Your task to perform on an android device: Go to settings Image 0: 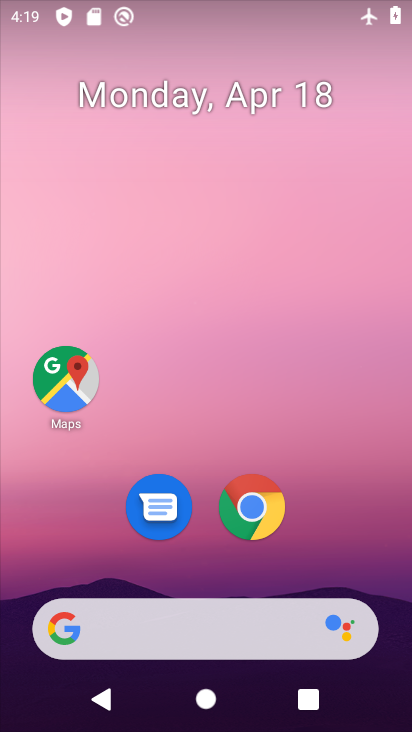
Step 0: drag from (334, 602) to (272, 67)
Your task to perform on an android device: Go to settings Image 1: 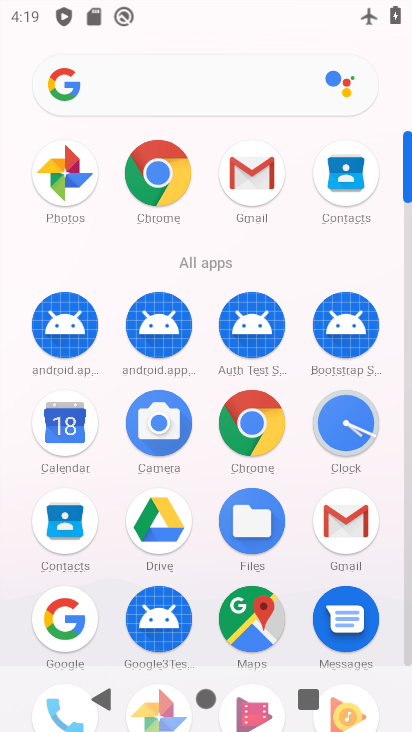
Step 1: drag from (278, 504) to (282, 147)
Your task to perform on an android device: Go to settings Image 2: 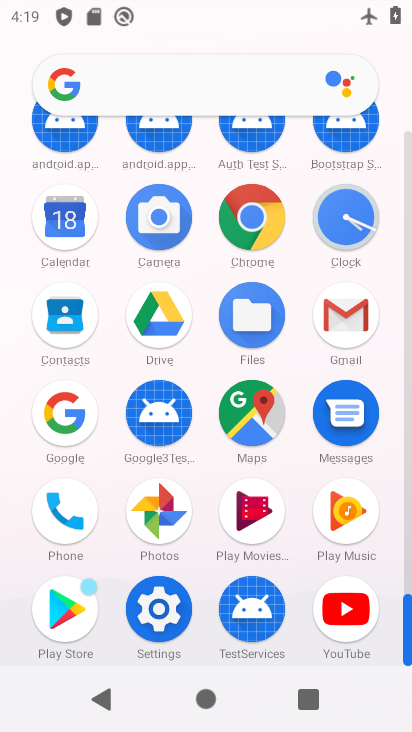
Step 2: click (155, 603)
Your task to perform on an android device: Go to settings Image 3: 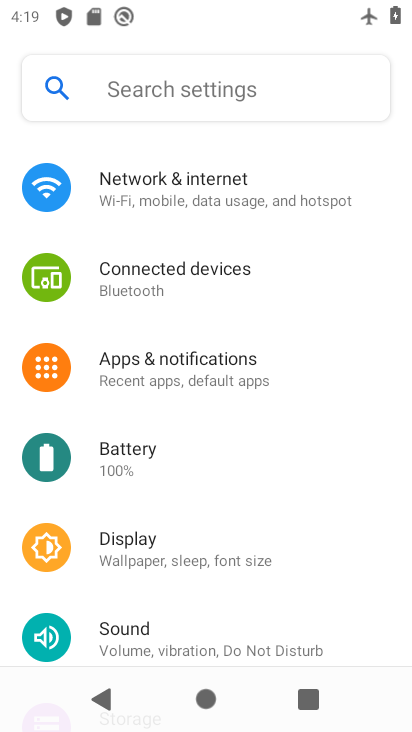
Step 3: task complete